Your task to perform on an android device: open sync settings in chrome Image 0: 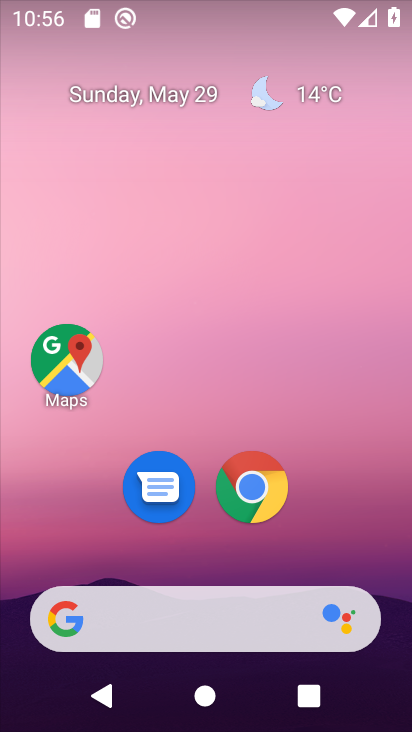
Step 0: click (252, 517)
Your task to perform on an android device: open sync settings in chrome Image 1: 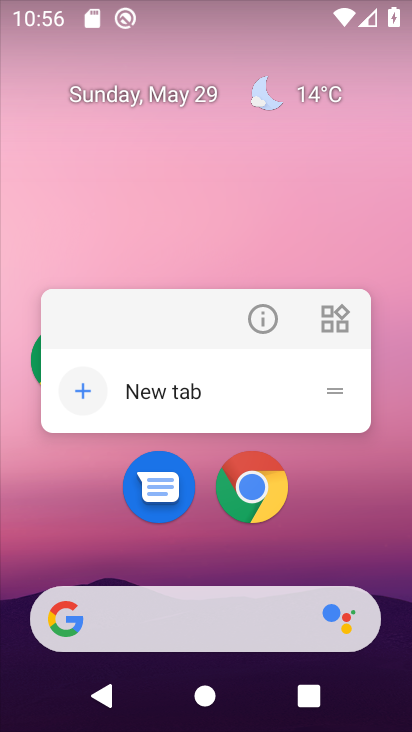
Step 1: click (263, 504)
Your task to perform on an android device: open sync settings in chrome Image 2: 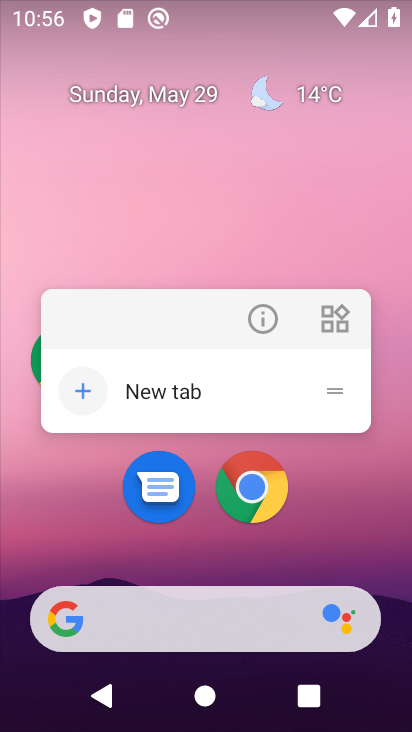
Step 2: click (266, 494)
Your task to perform on an android device: open sync settings in chrome Image 3: 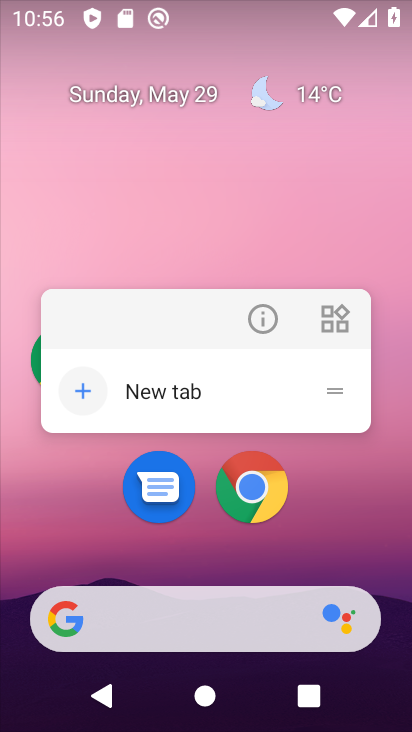
Step 3: click (251, 485)
Your task to perform on an android device: open sync settings in chrome Image 4: 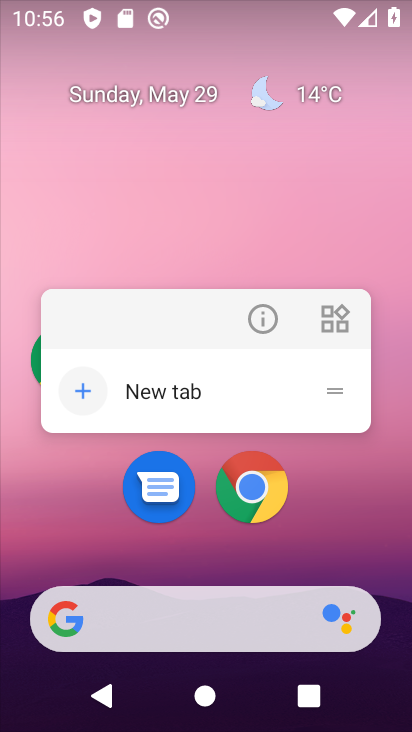
Step 4: click (247, 508)
Your task to perform on an android device: open sync settings in chrome Image 5: 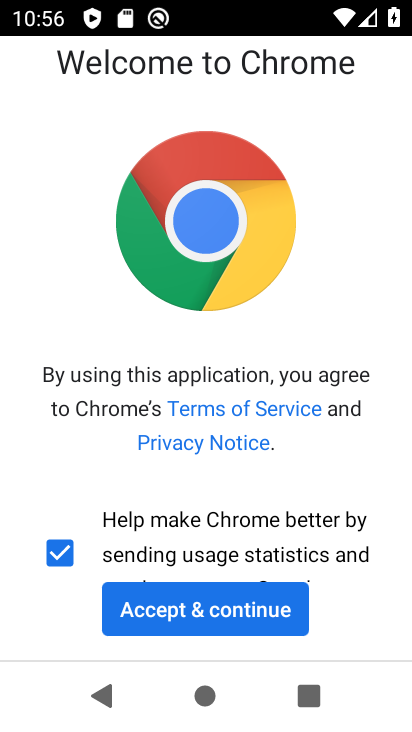
Step 5: click (217, 598)
Your task to perform on an android device: open sync settings in chrome Image 6: 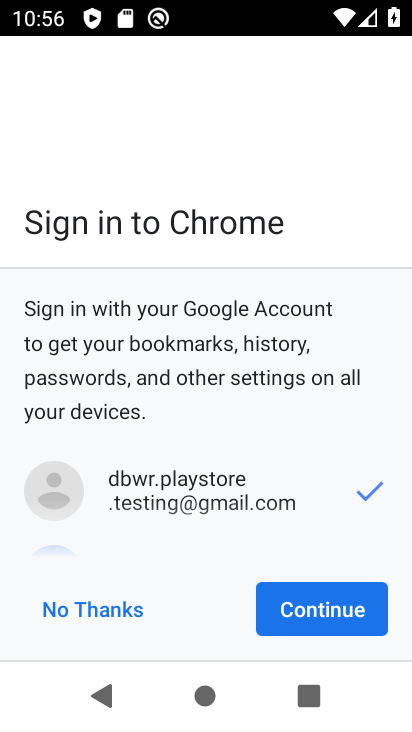
Step 6: click (358, 628)
Your task to perform on an android device: open sync settings in chrome Image 7: 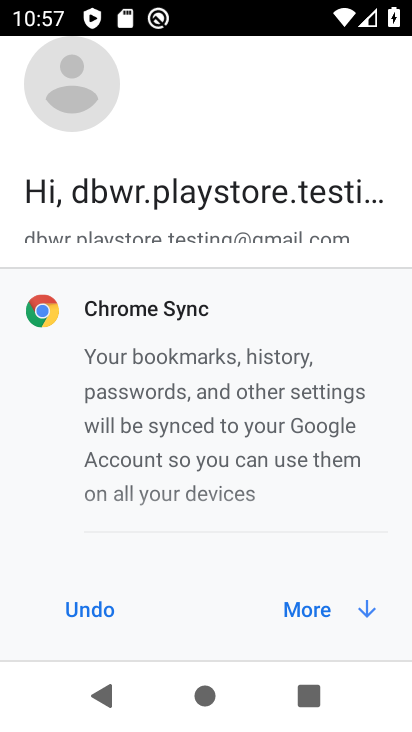
Step 7: click (327, 623)
Your task to perform on an android device: open sync settings in chrome Image 8: 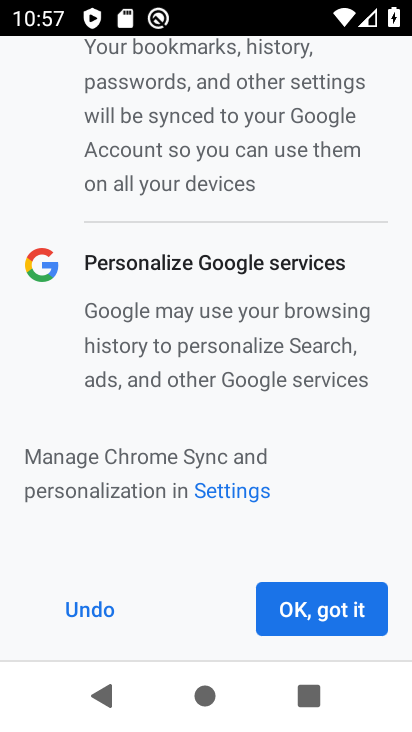
Step 8: click (380, 626)
Your task to perform on an android device: open sync settings in chrome Image 9: 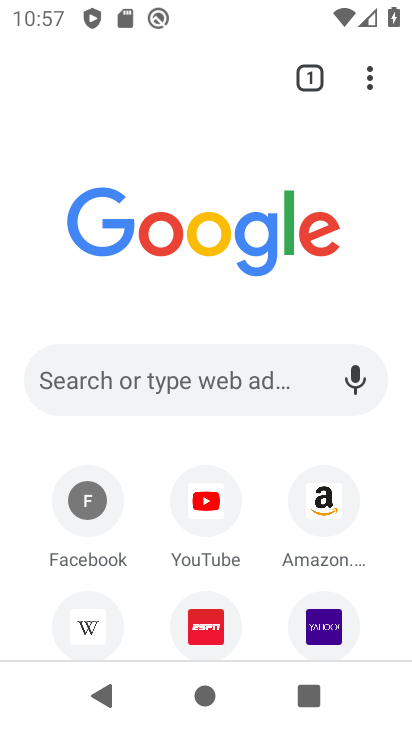
Step 9: drag from (383, 71) to (195, 562)
Your task to perform on an android device: open sync settings in chrome Image 10: 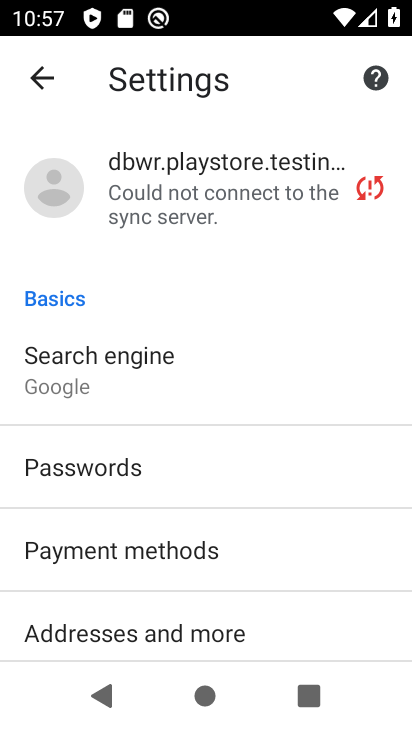
Step 10: click (219, 242)
Your task to perform on an android device: open sync settings in chrome Image 11: 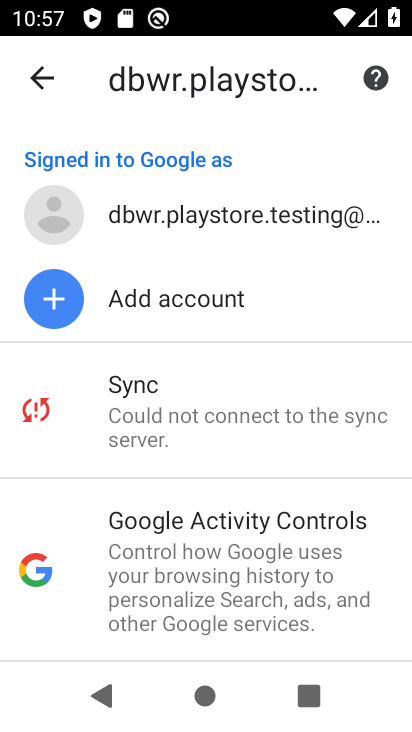
Step 11: click (239, 418)
Your task to perform on an android device: open sync settings in chrome Image 12: 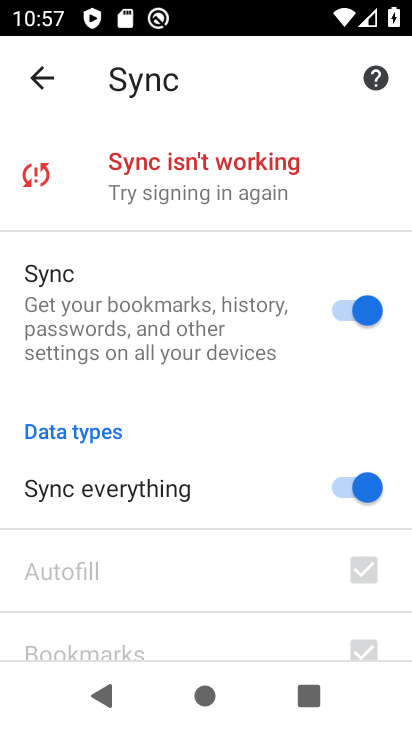
Step 12: task complete